Your task to perform on an android device: visit the assistant section in the google photos Image 0: 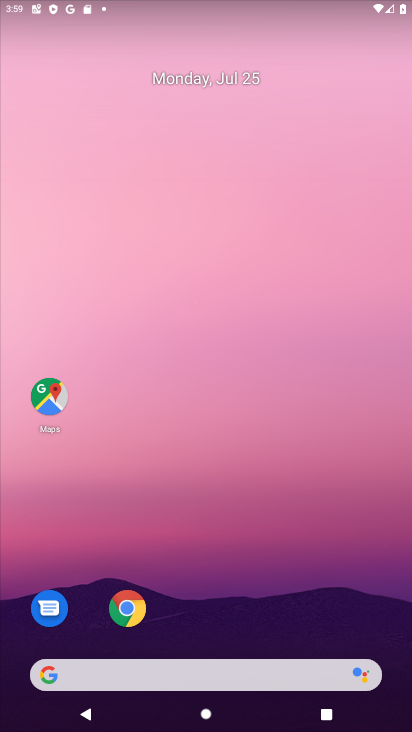
Step 0: drag from (210, 632) to (244, 12)
Your task to perform on an android device: visit the assistant section in the google photos Image 1: 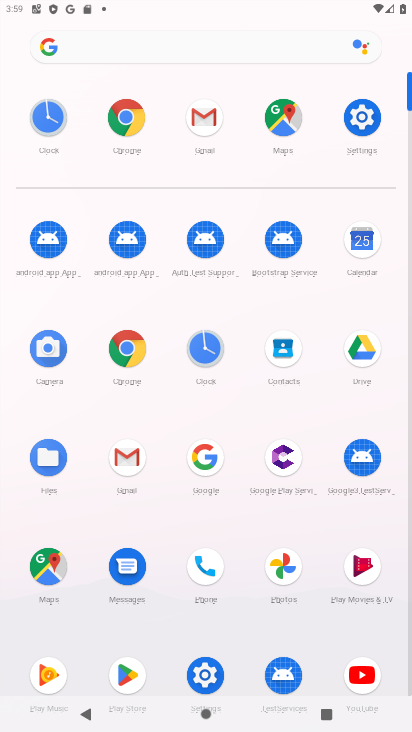
Step 1: click (268, 563)
Your task to perform on an android device: visit the assistant section in the google photos Image 2: 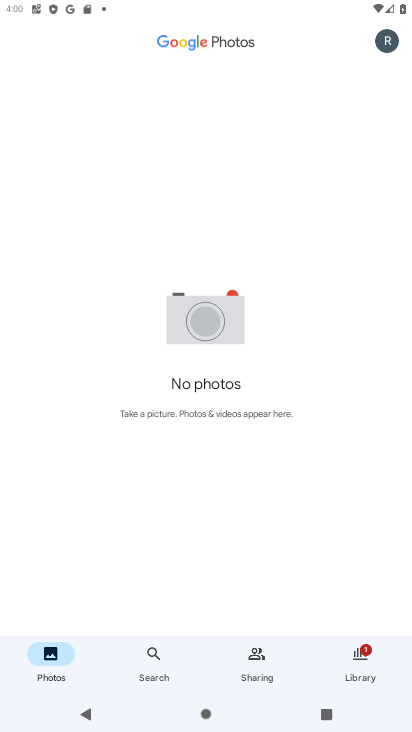
Step 2: task complete